Your task to perform on an android device: empty trash in the gmail app Image 0: 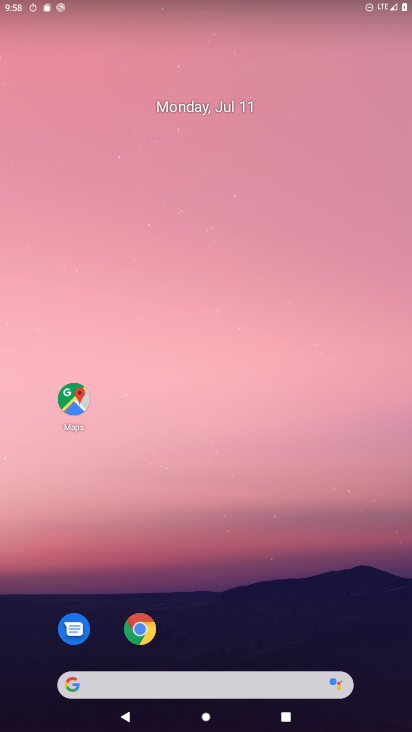
Step 0: drag from (201, 668) to (300, 211)
Your task to perform on an android device: empty trash in the gmail app Image 1: 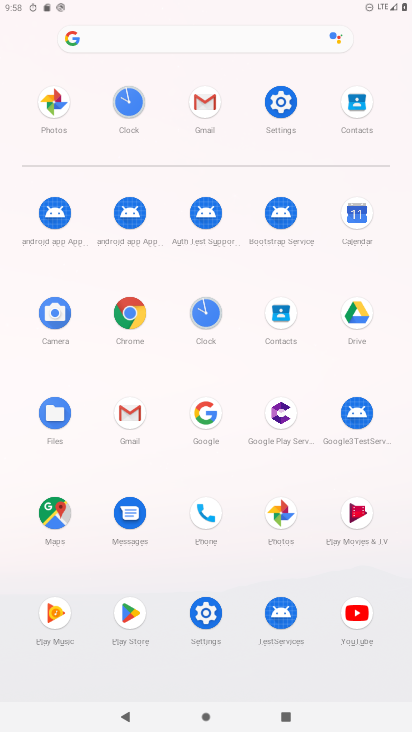
Step 1: click (213, 103)
Your task to perform on an android device: empty trash in the gmail app Image 2: 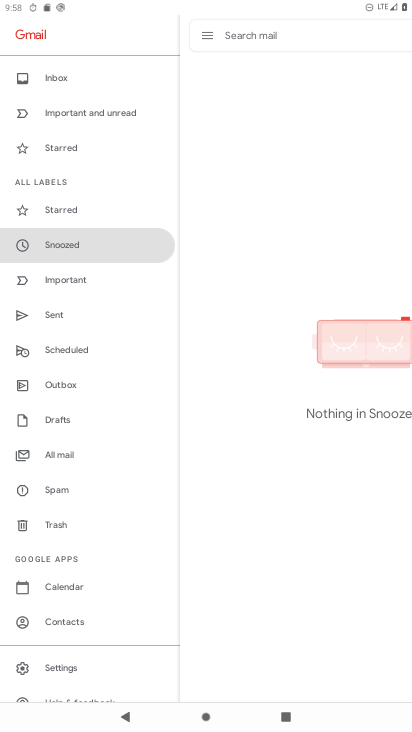
Step 2: click (58, 529)
Your task to perform on an android device: empty trash in the gmail app Image 3: 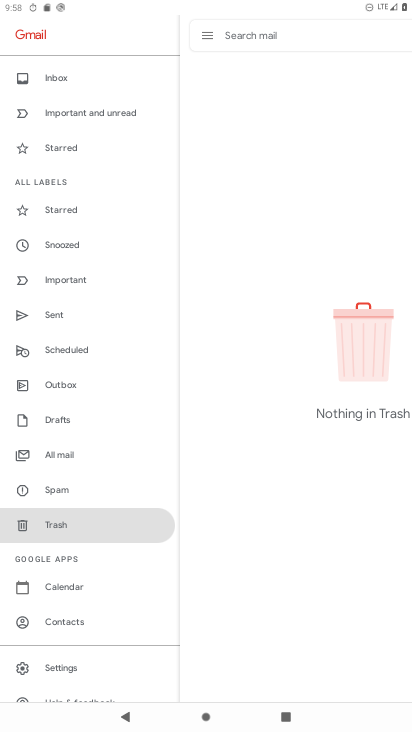
Step 3: task complete